Your task to perform on an android device: Search for sushi restaurants on Maps Image 0: 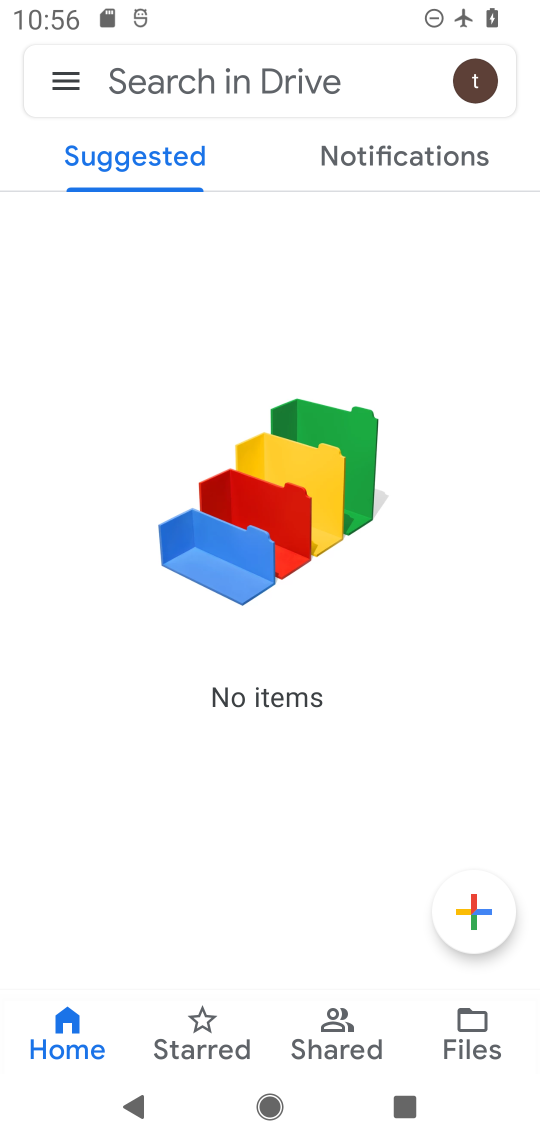
Step 0: press home button
Your task to perform on an android device: Search for sushi restaurants on Maps Image 1: 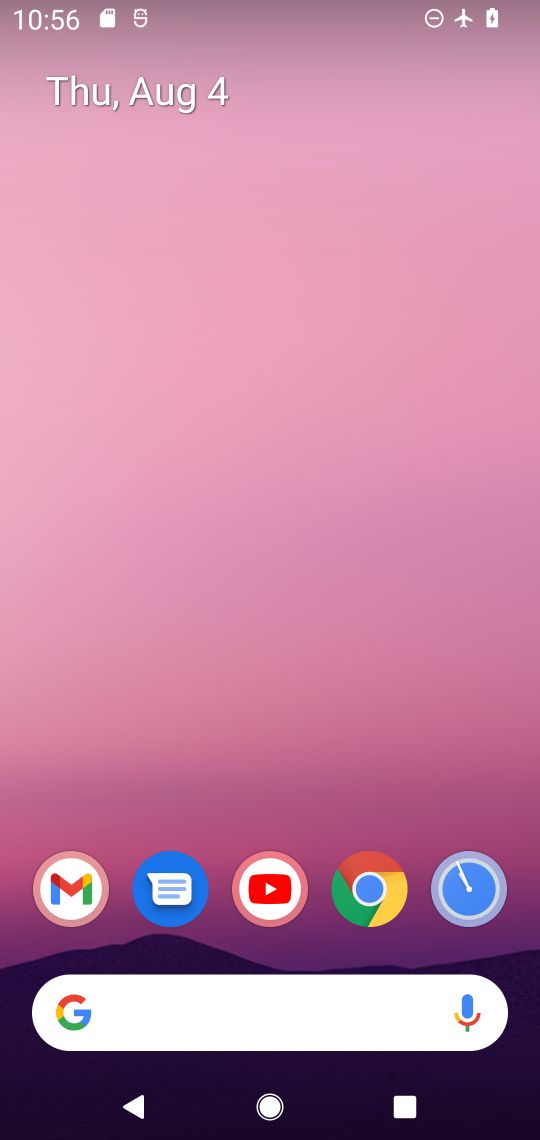
Step 1: drag from (321, 750) to (311, 232)
Your task to perform on an android device: Search for sushi restaurants on Maps Image 2: 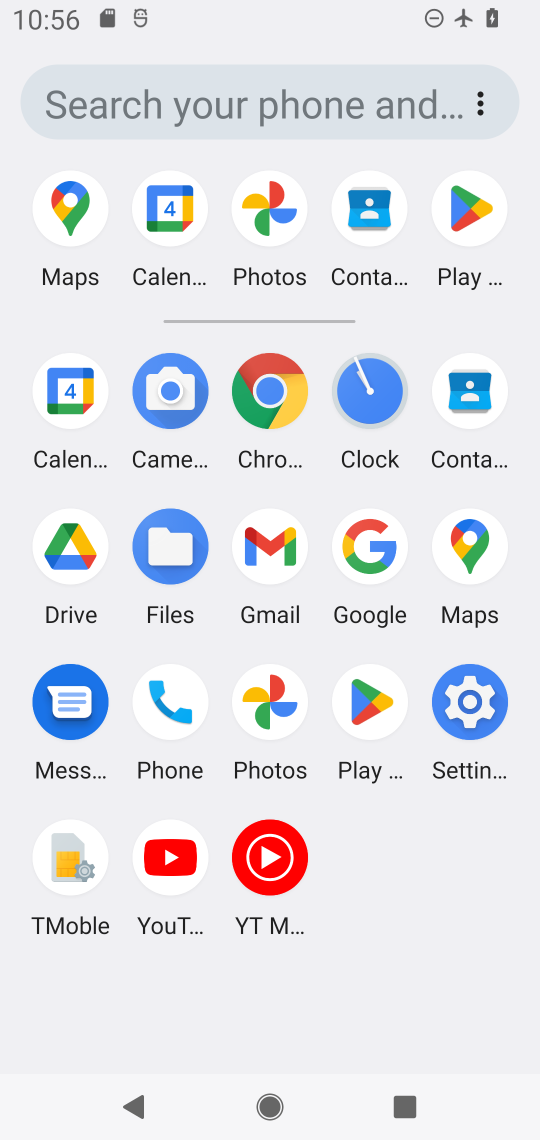
Step 2: click (476, 540)
Your task to perform on an android device: Search for sushi restaurants on Maps Image 3: 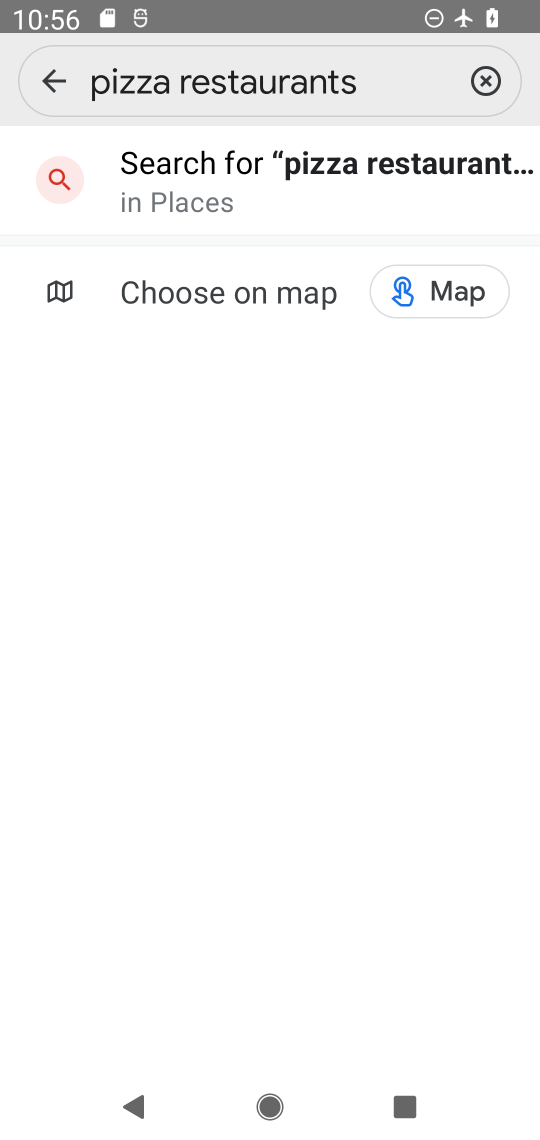
Step 3: press back button
Your task to perform on an android device: Search for sushi restaurants on Maps Image 4: 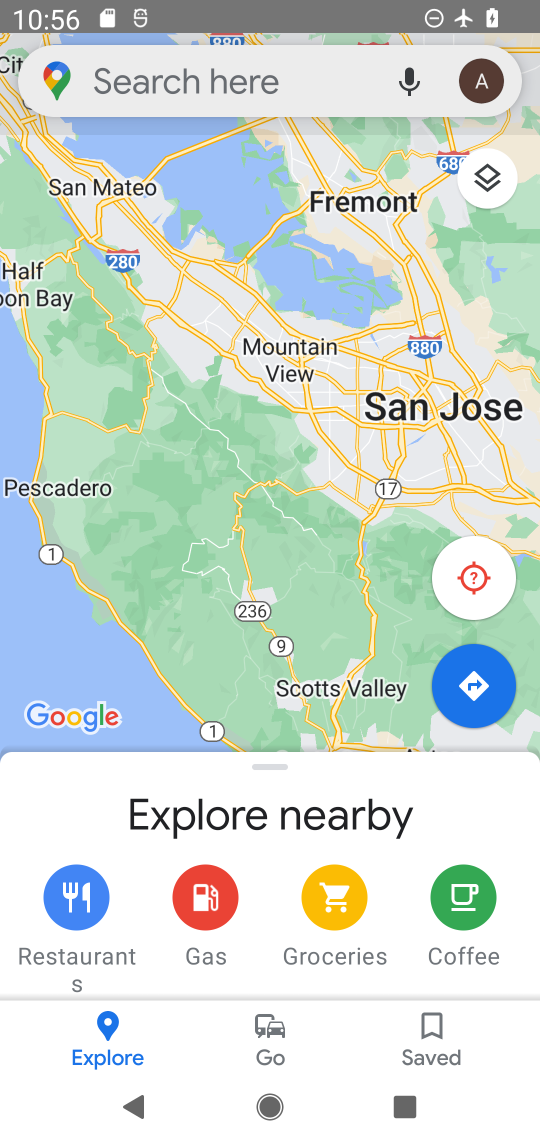
Step 4: click (306, 73)
Your task to perform on an android device: Search for sushi restaurants on Maps Image 5: 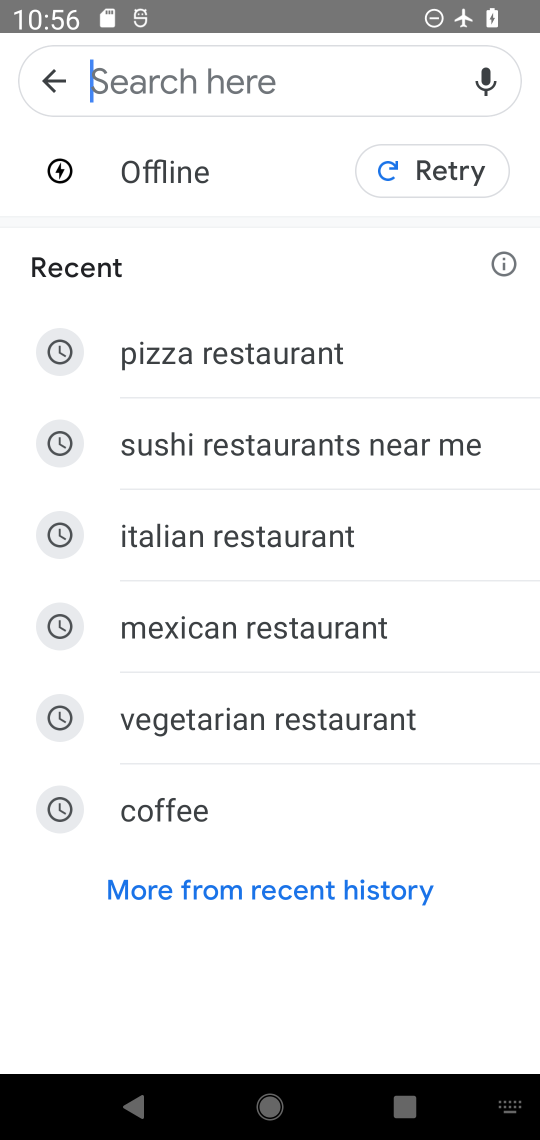
Step 5: type "sushi restaurants"
Your task to perform on an android device: Search for sushi restaurants on Maps Image 6: 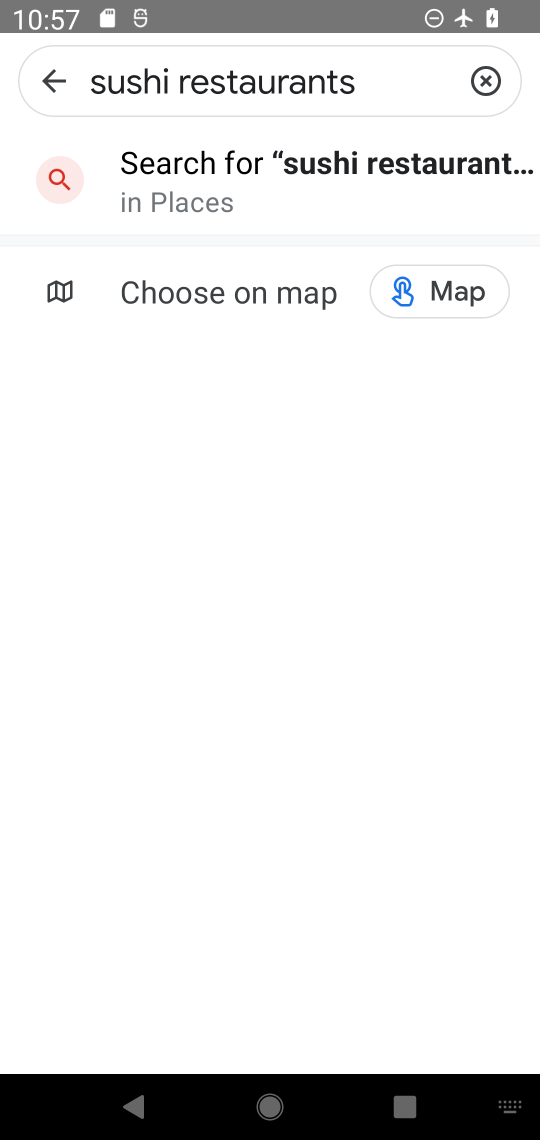
Step 6: task complete